Your task to perform on an android device: check data usage Image 0: 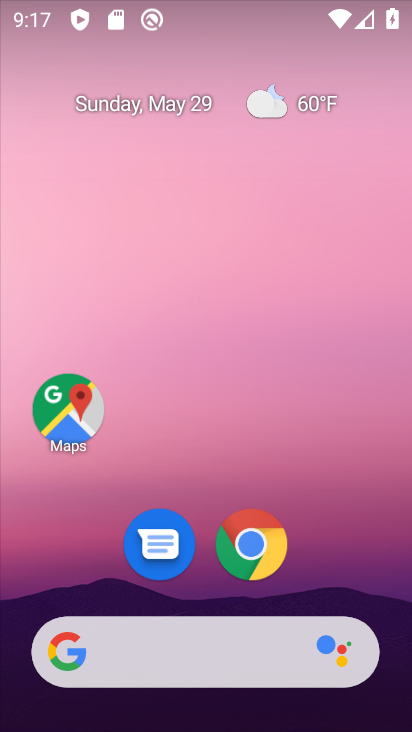
Step 0: drag from (323, 541) to (386, 101)
Your task to perform on an android device: check data usage Image 1: 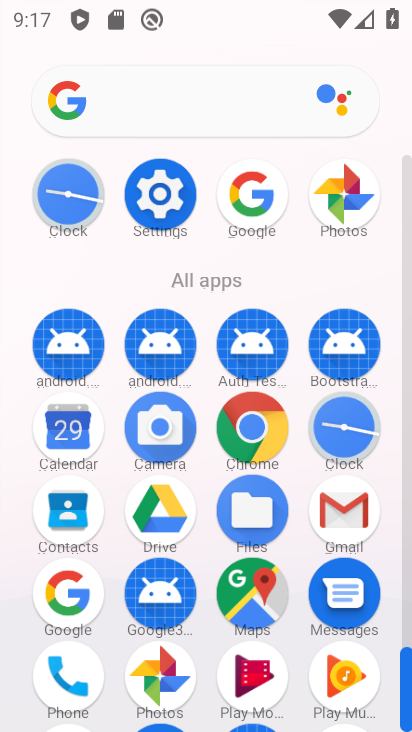
Step 1: click (165, 185)
Your task to perform on an android device: check data usage Image 2: 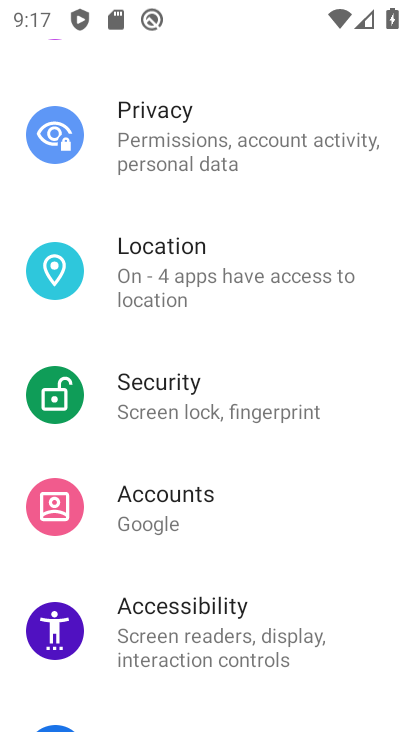
Step 2: drag from (213, 143) to (235, 594)
Your task to perform on an android device: check data usage Image 3: 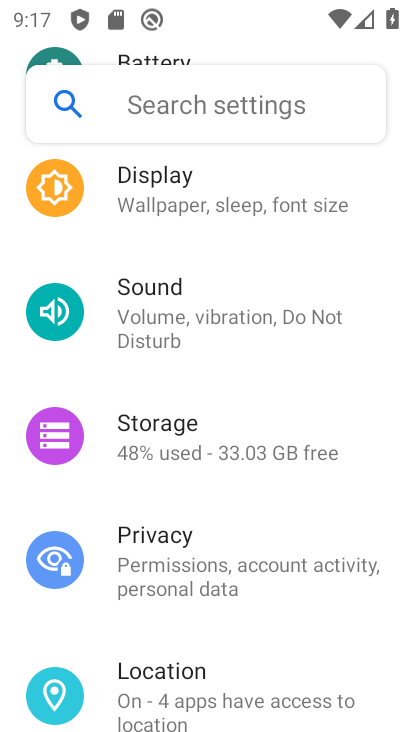
Step 3: drag from (185, 179) to (269, 607)
Your task to perform on an android device: check data usage Image 4: 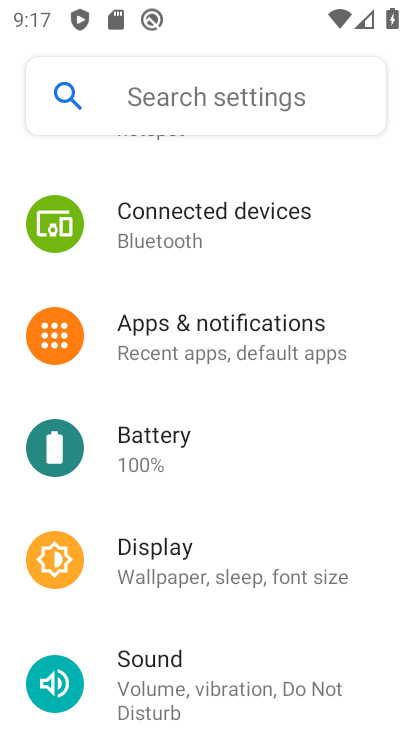
Step 4: drag from (183, 199) to (211, 405)
Your task to perform on an android device: check data usage Image 5: 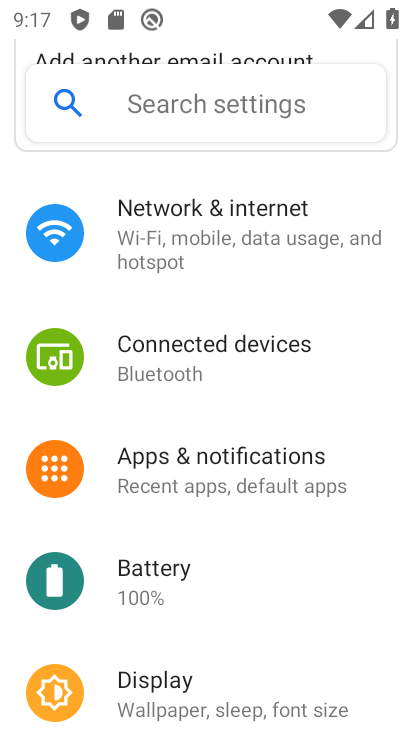
Step 5: click (202, 245)
Your task to perform on an android device: check data usage Image 6: 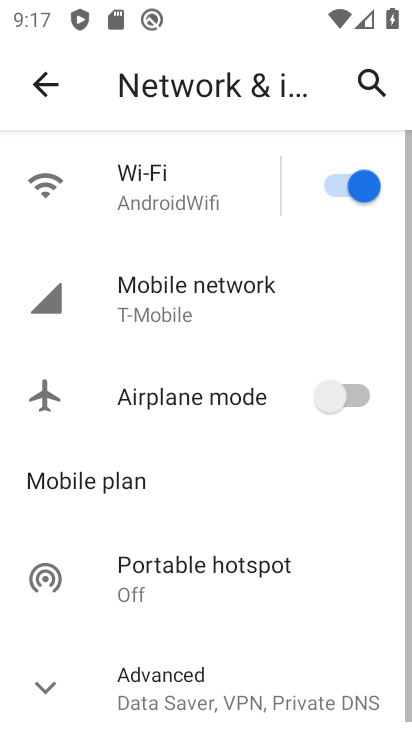
Step 6: click (167, 284)
Your task to perform on an android device: check data usage Image 7: 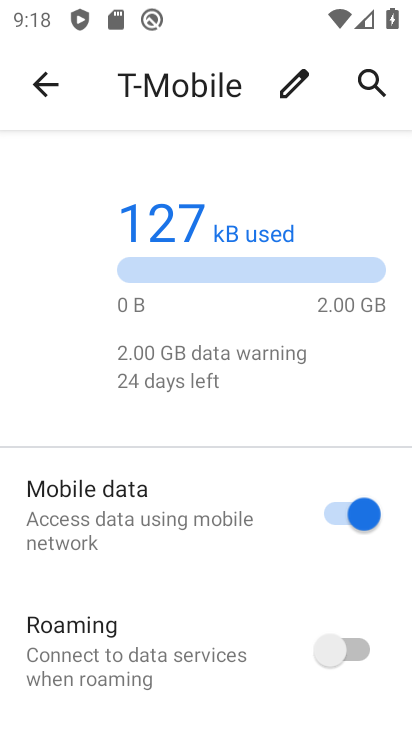
Step 7: task complete